Your task to perform on an android device: change notifications settings Image 0: 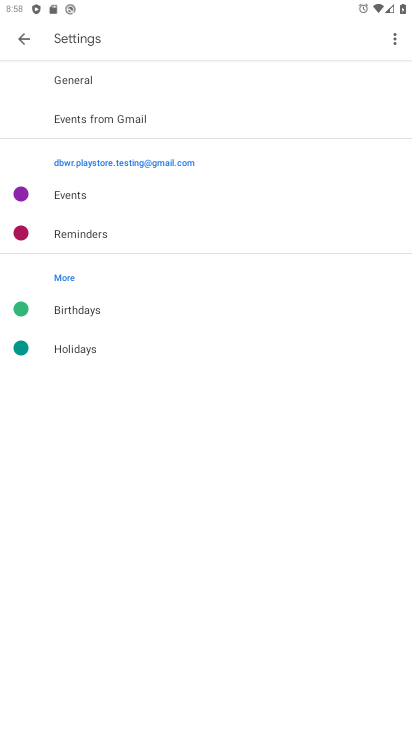
Step 0: press home button
Your task to perform on an android device: change notifications settings Image 1: 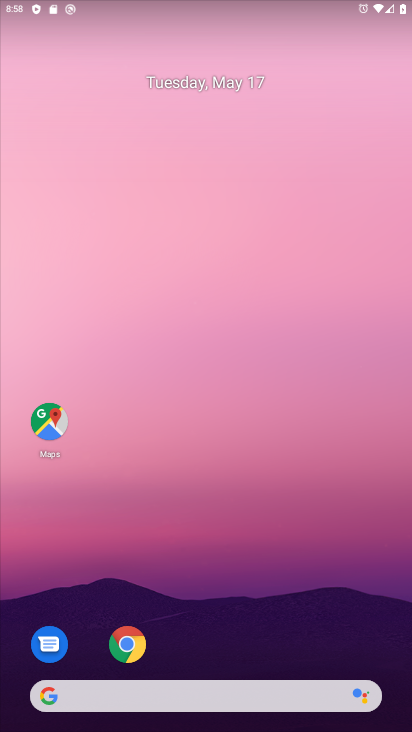
Step 1: drag from (208, 661) to (223, 91)
Your task to perform on an android device: change notifications settings Image 2: 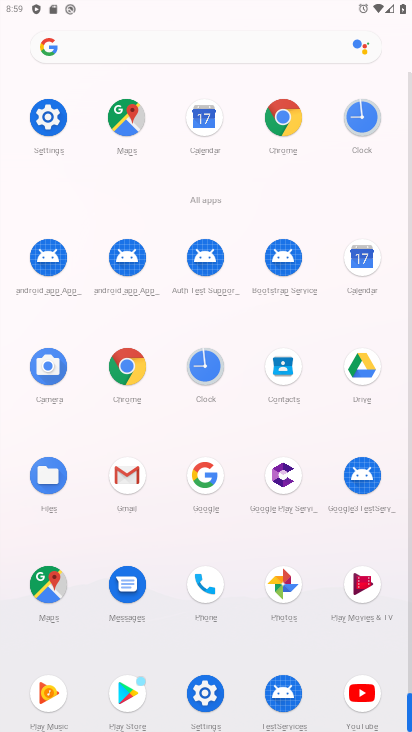
Step 2: click (45, 108)
Your task to perform on an android device: change notifications settings Image 3: 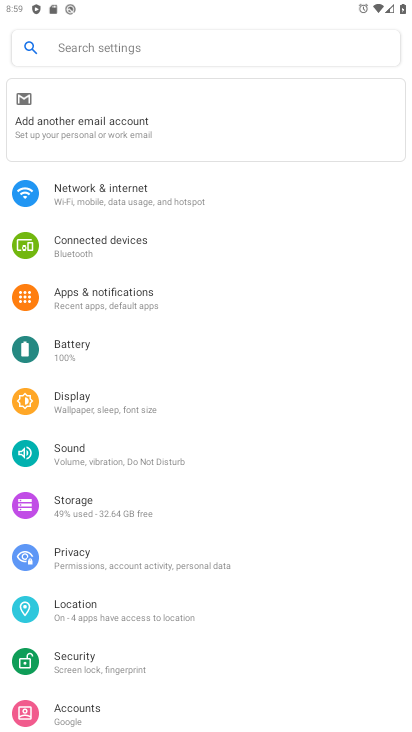
Step 3: click (171, 294)
Your task to perform on an android device: change notifications settings Image 4: 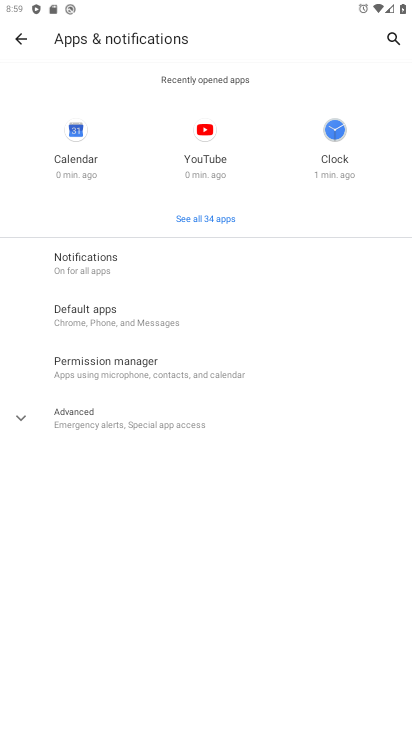
Step 4: click (128, 259)
Your task to perform on an android device: change notifications settings Image 5: 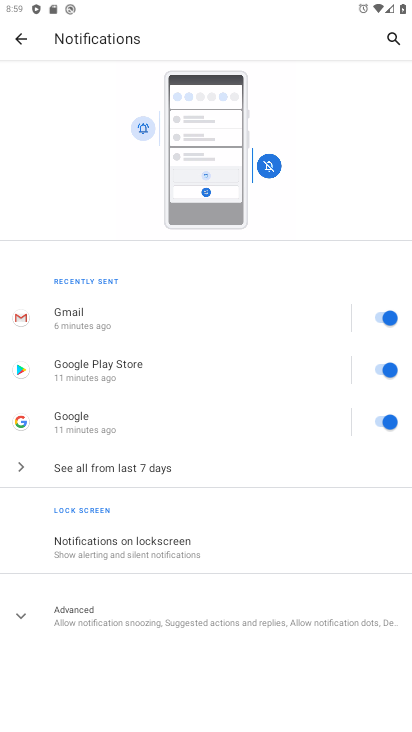
Step 5: click (15, 614)
Your task to perform on an android device: change notifications settings Image 6: 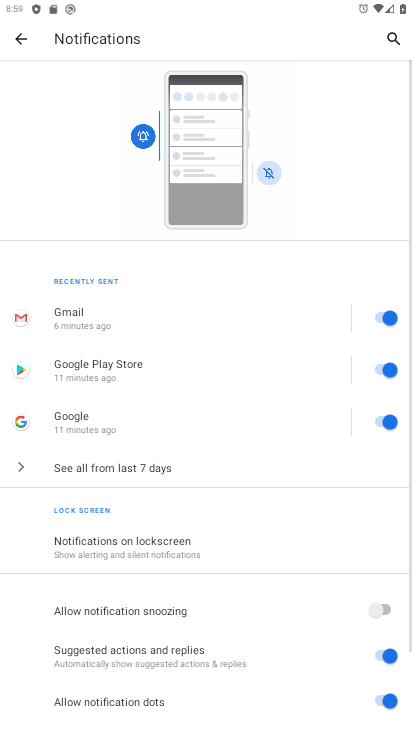
Step 6: drag from (235, 684) to (241, 399)
Your task to perform on an android device: change notifications settings Image 7: 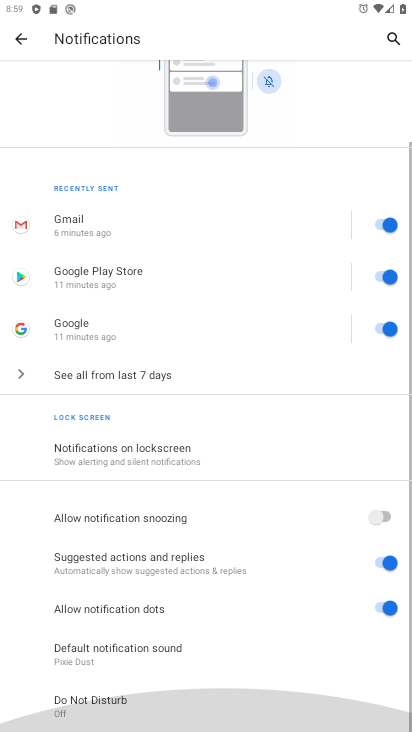
Step 7: click (245, 318)
Your task to perform on an android device: change notifications settings Image 8: 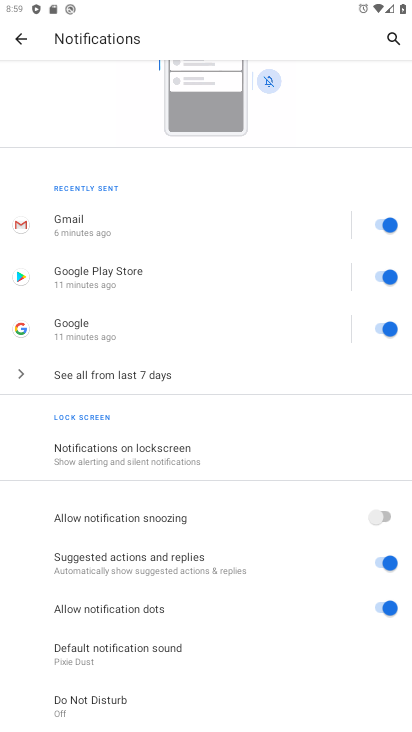
Step 8: click (377, 216)
Your task to perform on an android device: change notifications settings Image 9: 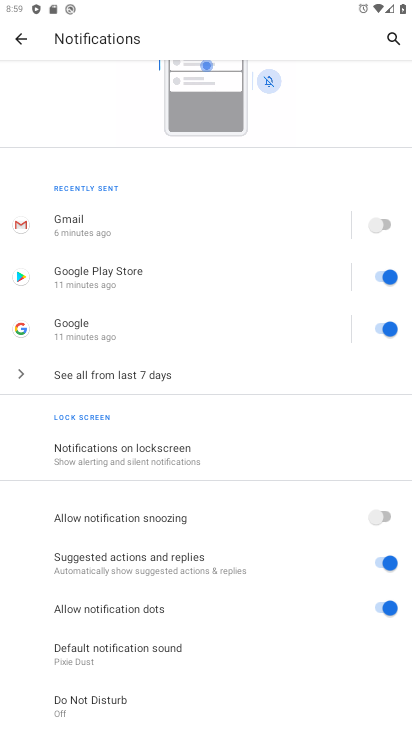
Step 9: click (384, 276)
Your task to perform on an android device: change notifications settings Image 10: 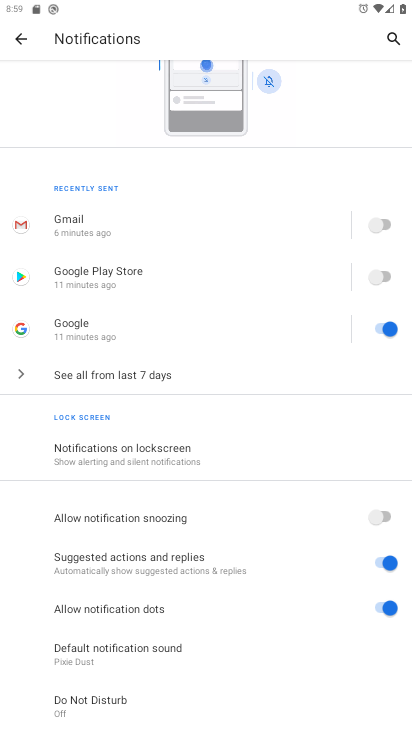
Step 10: click (378, 323)
Your task to perform on an android device: change notifications settings Image 11: 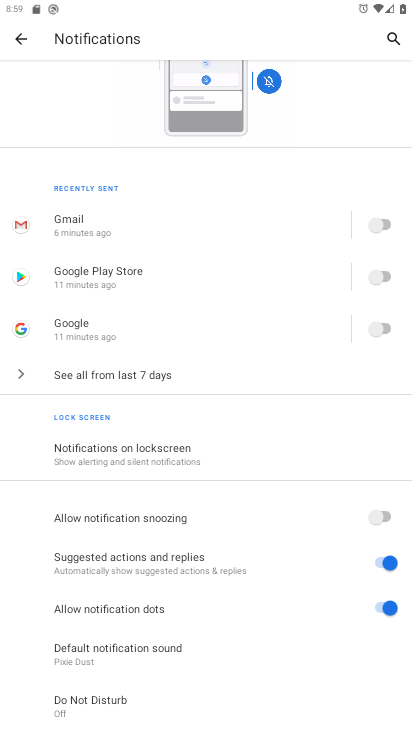
Step 11: click (190, 457)
Your task to perform on an android device: change notifications settings Image 12: 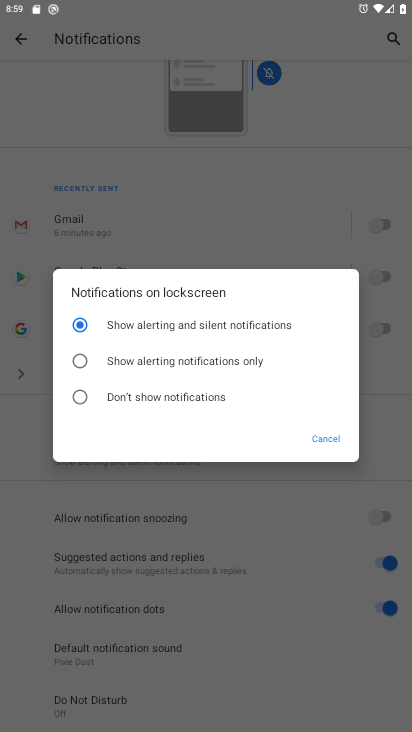
Step 12: click (79, 358)
Your task to perform on an android device: change notifications settings Image 13: 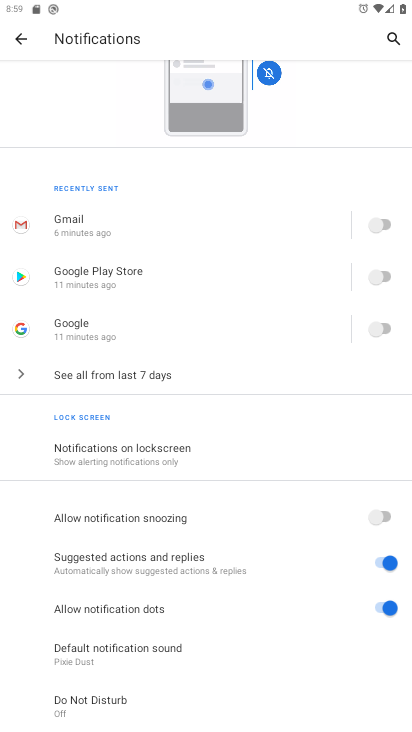
Step 13: task complete